Your task to perform on an android device: delete a single message in the gmail app Image 0: 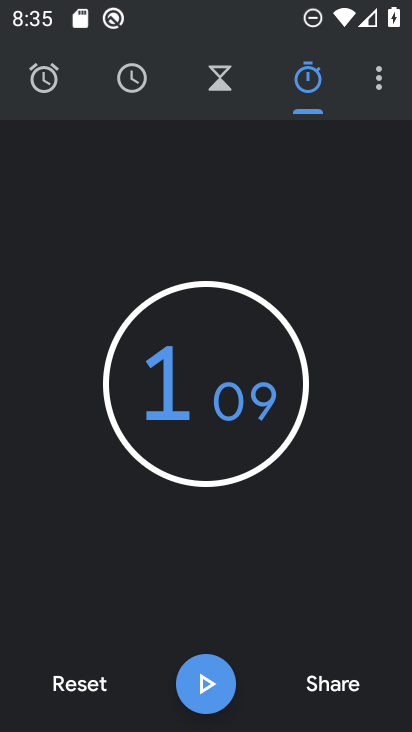
Step 0: press home button
Your task to perform on an android device: delete a single message in the gmail app Image 1: 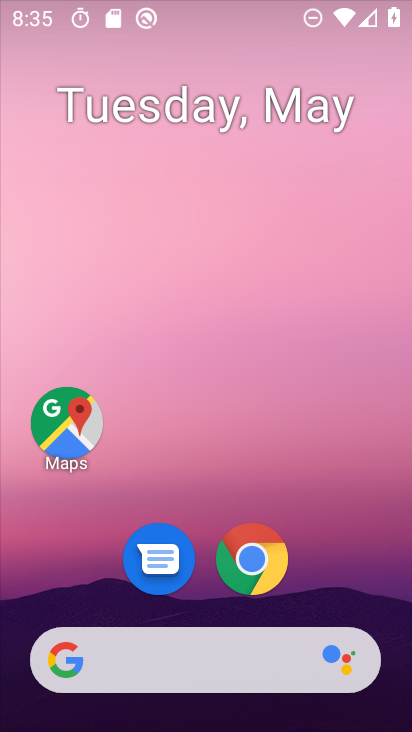
Step 1: drag from (385, 630) to (262, 39)
Your task to perform on an android device: delete a single message in the gmail app Image 2: 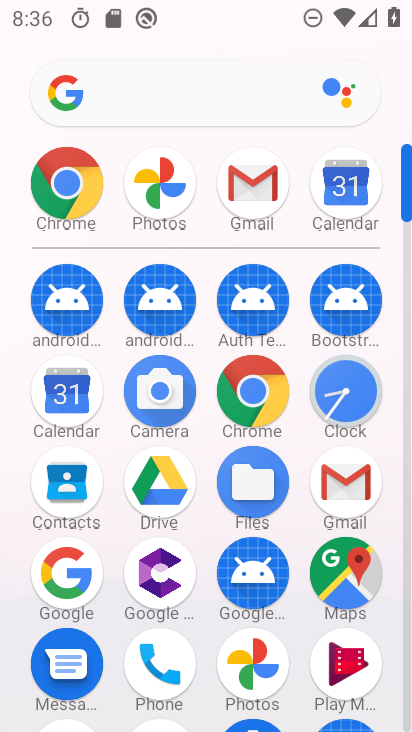
Step 2: click (371, 483)
Your task to perform on an android device: delete a single message in the gmail app Image 3: 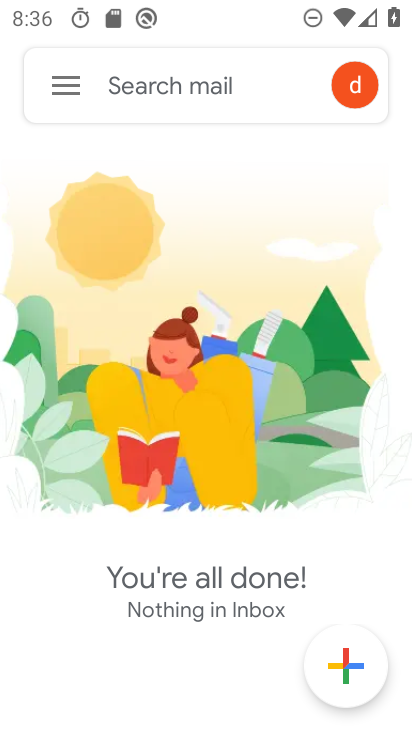
Step 3: task complete